Your task to perform on an android device: uninstall "Facebook Lite" Image 0: 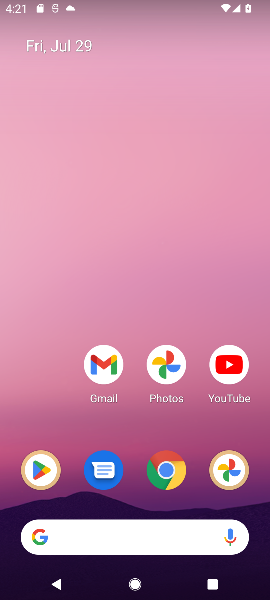
Step 0: click (35, 477)
Your task to perform on an android device: uninstall "Facebook Lite" Image 1: 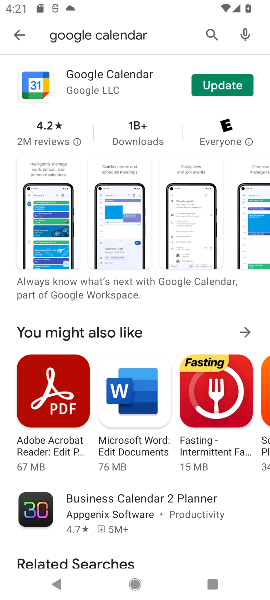
Step 1: click (205, 34)
Your task to perform on an android device: uninstall "Facebook Lite" Image 2: 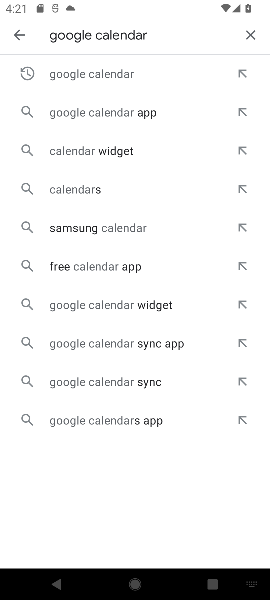
Step 2: type "Facebook Lite"
Your task to perform on an android device: uninstall "Facebook Lite" Image 3: 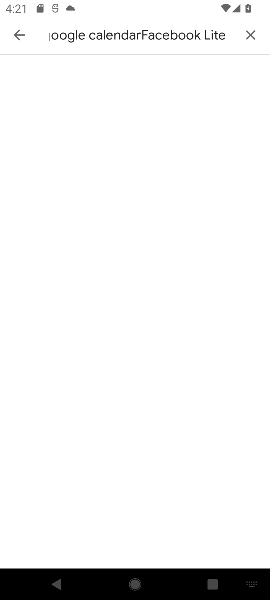
Step 3: click (250, 31)
Your task to perform on an android device: uninstall "Facebook Lite" Image 4: 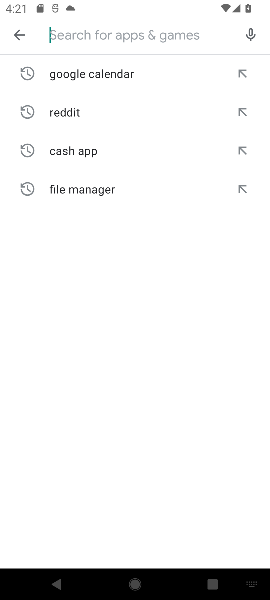
Step 4: type "Facebook Lite"
Your task to perform on an android device: uninstall "Facebook Lite" Image 5: 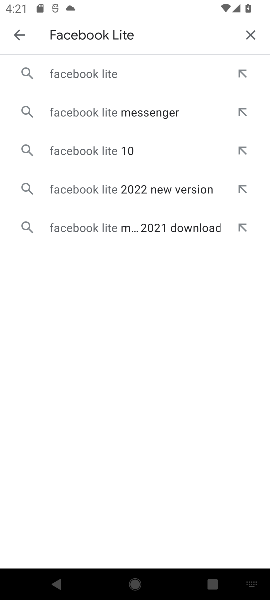
Step 5: click (84, 72)
Your task to perform on an android device: uninstall "Facebook Lite" Image 6: 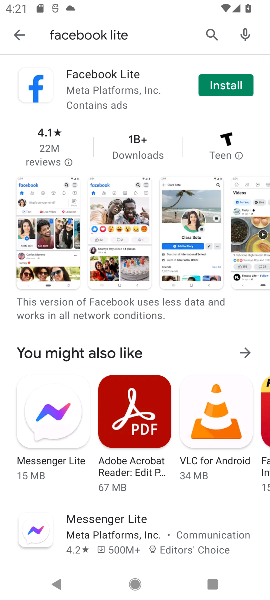
Step 6: task complete